Your task to perform on an android device: Open Chrome and go to the settings page Image 0: 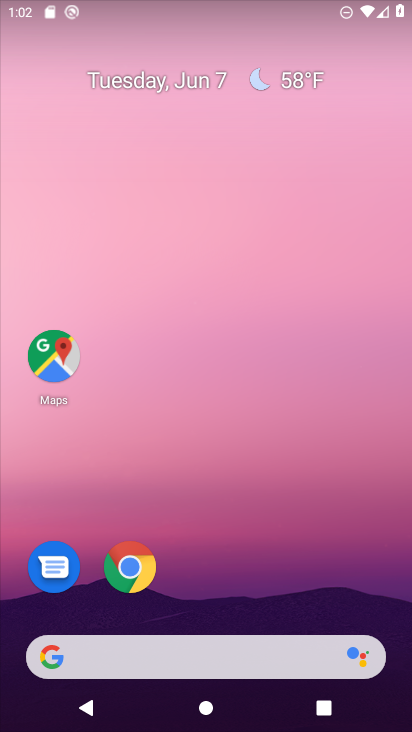
Step 0: click (123, 575)
Your task to perform on an android device: Open Chrome and go to the settings page Image 1: 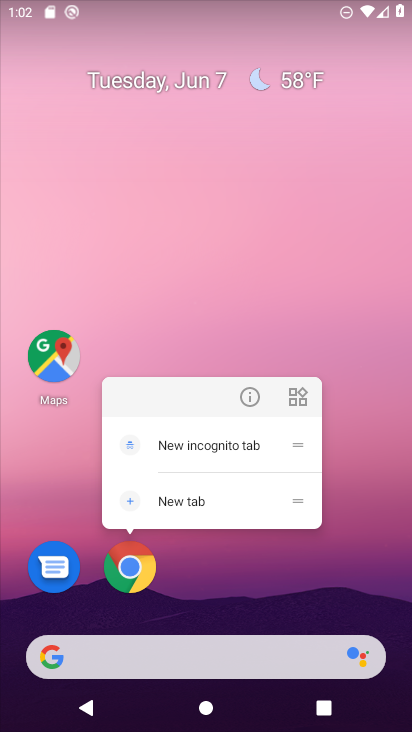
Step 1: click (144, 561)
Your task to perform on an android device: Open Chrome and go to the settings page Image 2: 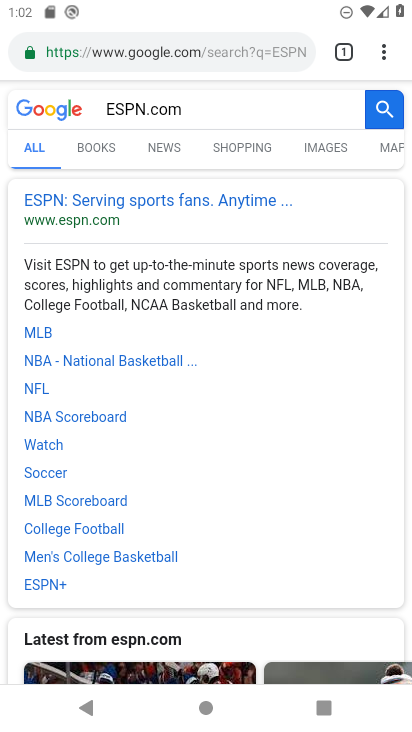
Step 2: click (298, 47)
Your task to perform on an android device: Open Chrome and go to the settings page Image 3: 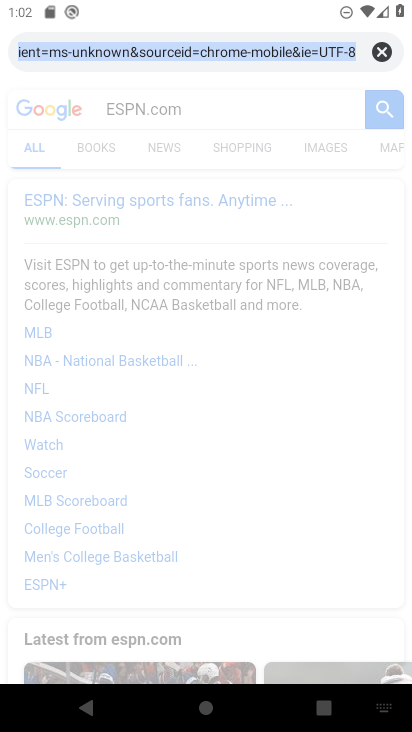
Step 3: click (382, 51)
Your task to perform on an android device: Open Chrome and go to the settings page Image 4: 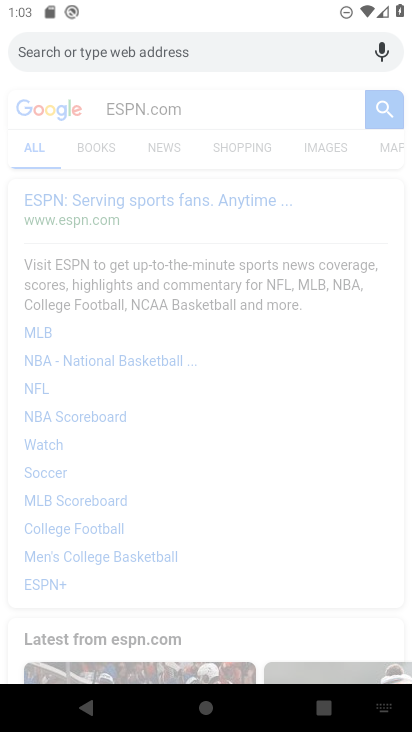
Step 4: click (76, 712)
Your task to perform on an android device: Open Chrome and go to the settings page Image 5: 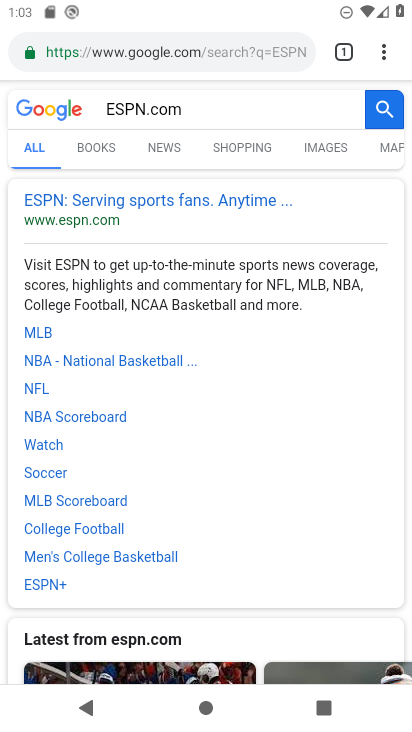
Step 5: press back button
Your task to perform on an android device: Open Chrome and go to the settings page Image 6: 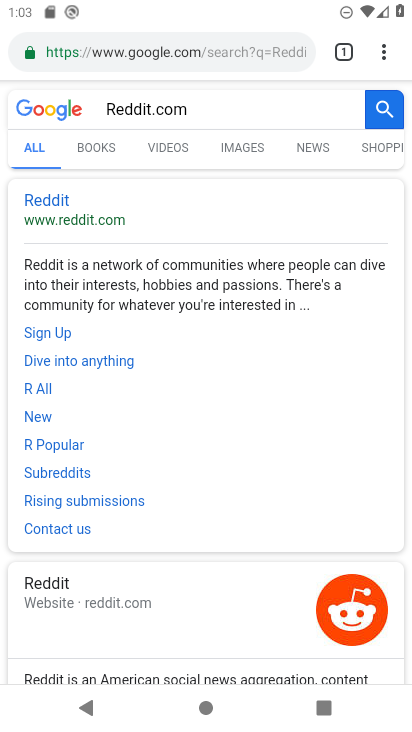
Step 6: click (387, 46)
Your task to perform on an android device: Open Chrome and go to the settings page Image 7: 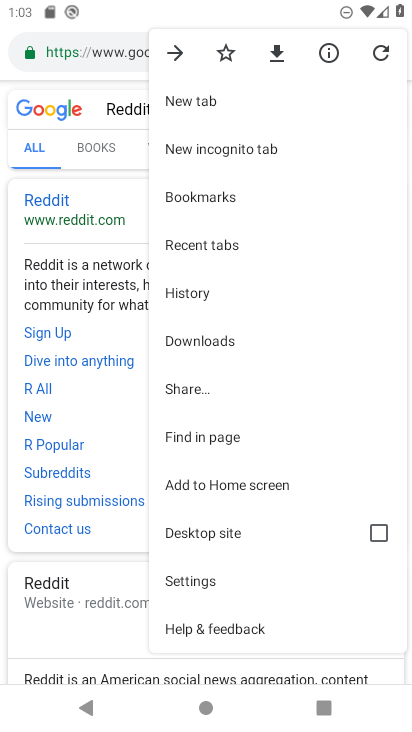
Step 7: click (196, 586)
Your task to perform on an android device: Open Chrome and go to the settings page Image 8: 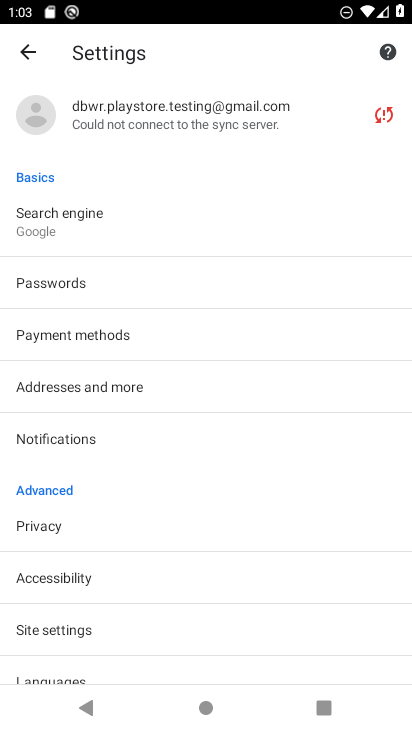
Step 8: task complete